Your task to perform on an android device: read, delete, or share a saved page in the chrome app Image 0: 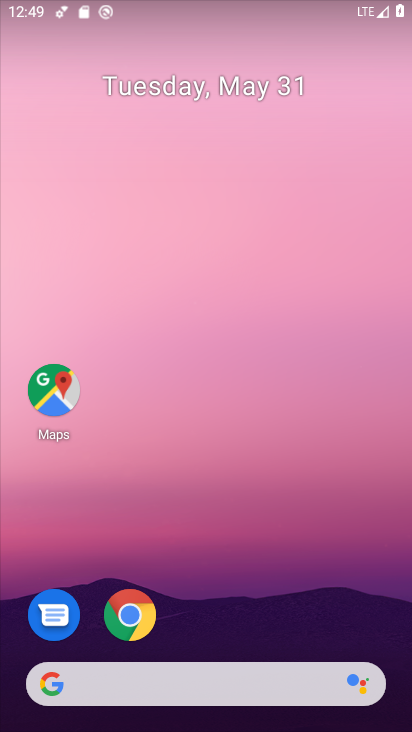
Step 0: click (134, 610)
Your task to perform on an android device: read, delete, or share a saved page in the chrome app Image 1: 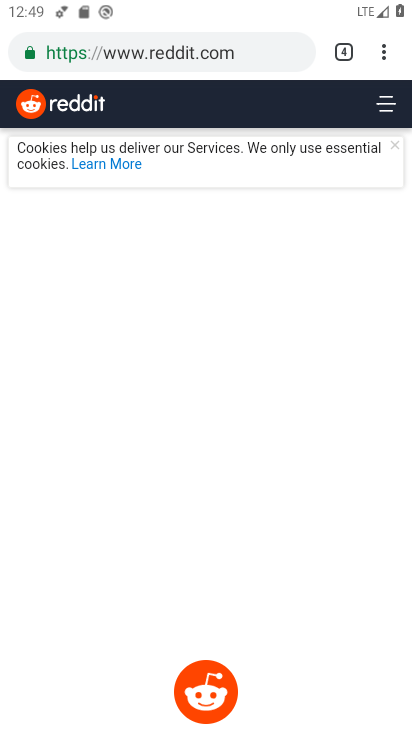
Step 1: click (384, 54)
Your task to perform on an android device: read, delete, or share a saved page in the chrome app Image 2: 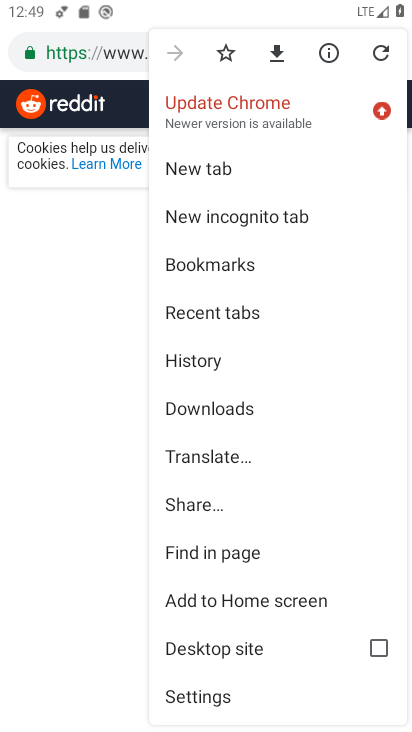
Step 2: click (213, 411)
Your task to perform on an android device: read, delete, or share a saved page in the chrome app Image 3: 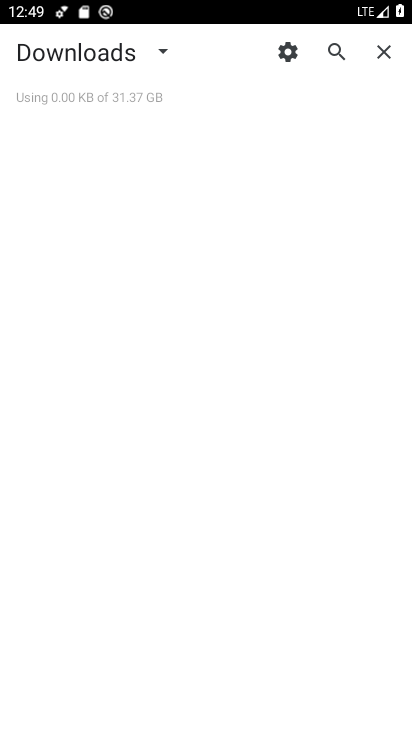
Step 3: task complete